Your task to perform on an android device: Go to eBay Image 0: 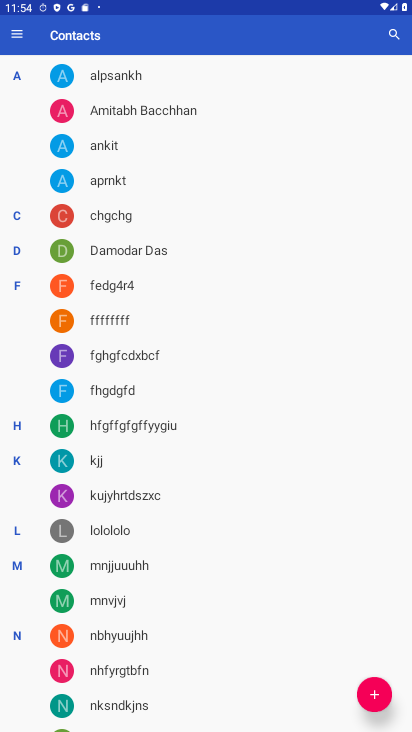
Step 0: press home button
Your task to perform on an android device: Go to eBay Image 1: 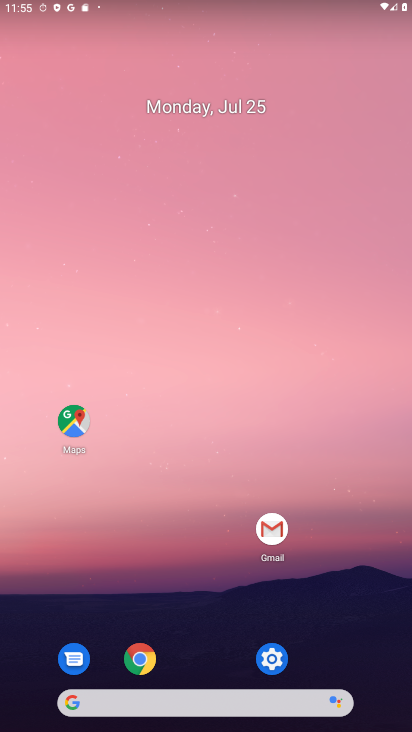
Step 1: drag from (205, 725) to (395, 95)
Your task to perform on an android device: Go to eBay Image 2: 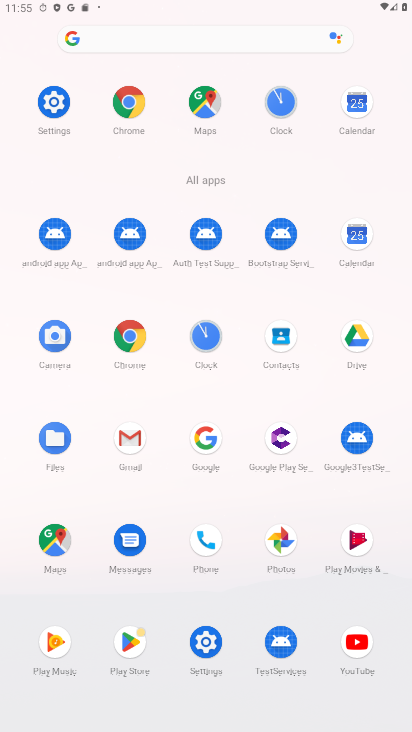
Step 2: click (134, 96)
Your task to perform on an android device: Go to eBay Image 3: 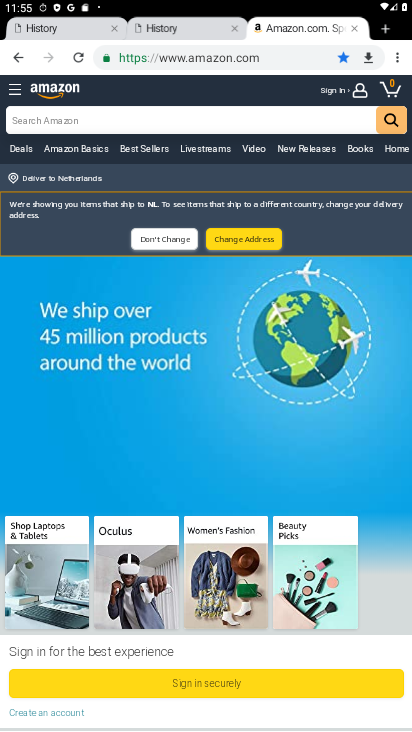
Step 3: click (383, 28)
Your task to perform on an android device: Go to eBay Image 4: 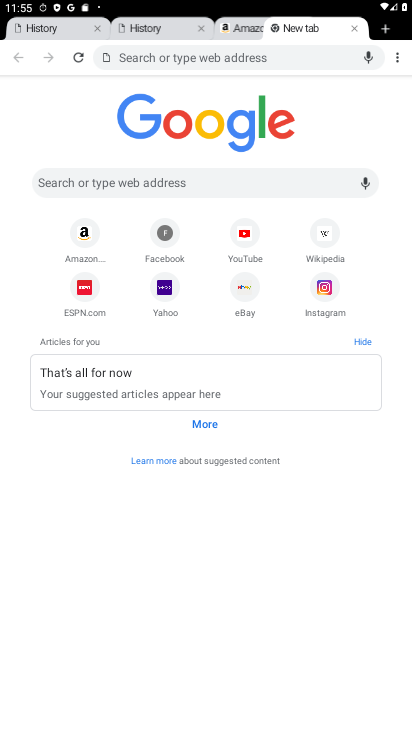
Step 4: click (253, 281)
Your task to perform on an android device: Go to eBay Image 5: 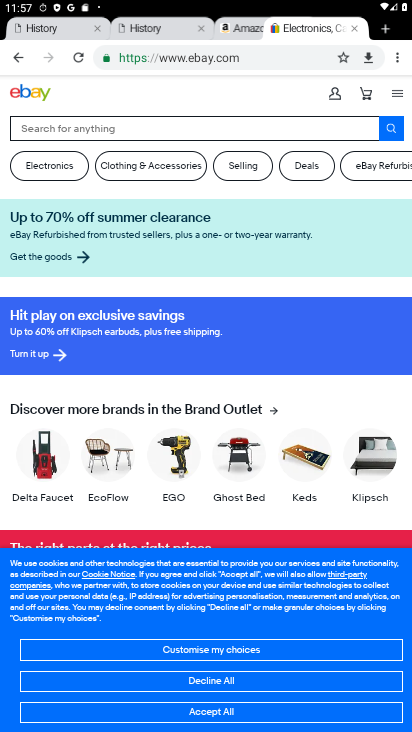
Step 5: task complete